Your task to perform on an android device: open sync settings in chrome Image 0: 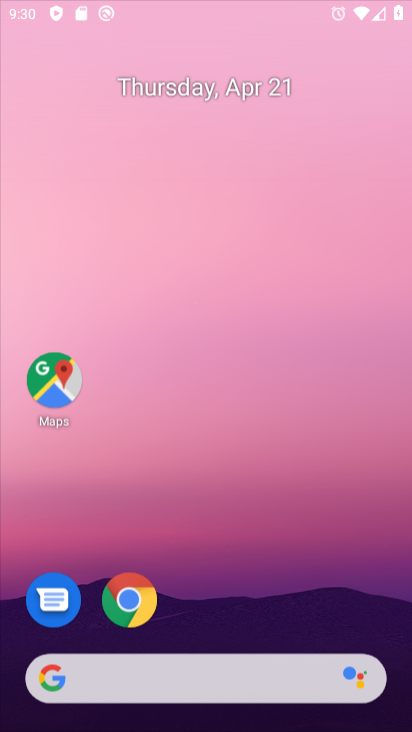
Step 0: click (128, 602)
Your task to perform on an android device: open sync settings in chrome Image 1: 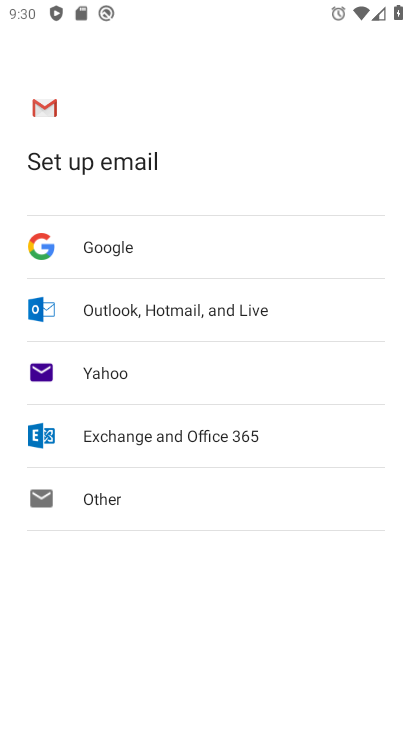
Step 1: press home button
Your task to perform on an android device: open sync settings in chrome Image 2: 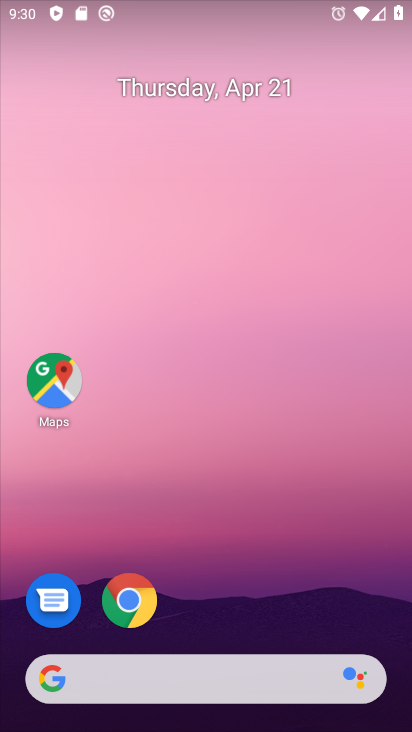
Step 2: click (131, 595)
Your task to perform on an android device: open sync settings in chrome Image 3: 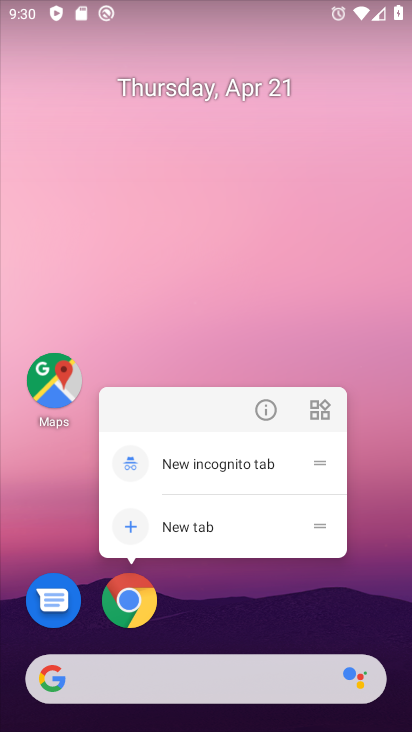
Step 3: click (131, 599)
Your task to perform on an android device: open sync settings in chrome Image 4: 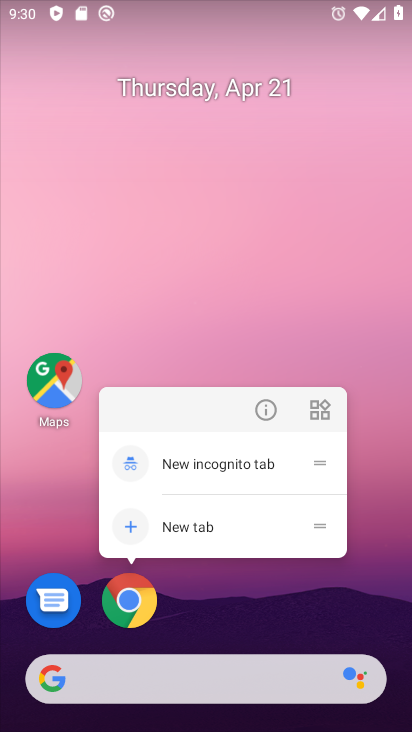
Step 4: click (223, 592)
Your task to perform on an android device: open sync settings in chrome Image 5: 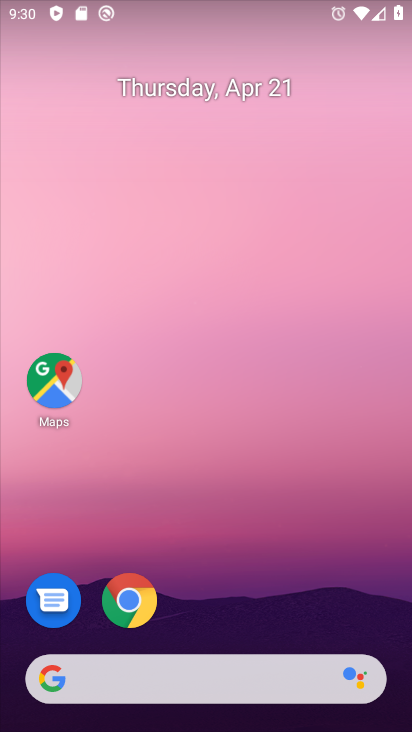
Step 5: click (130, 599)
Your task to perform on an android device: open sync settings in chrome Image 6: 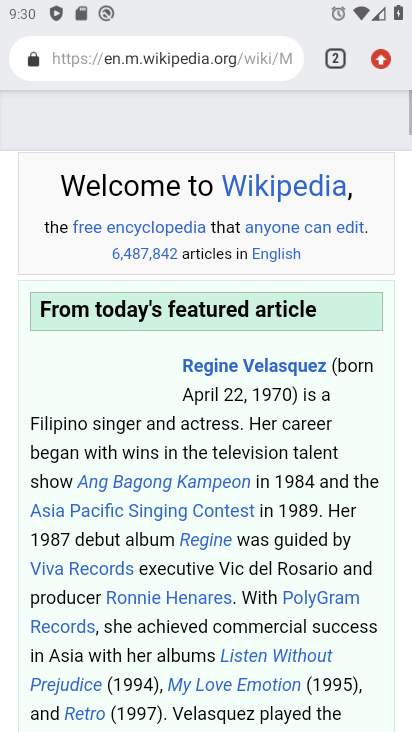
Step 6: click (379, 56)
Your task to perform on an android device: open sync settings in chrome Image 7: 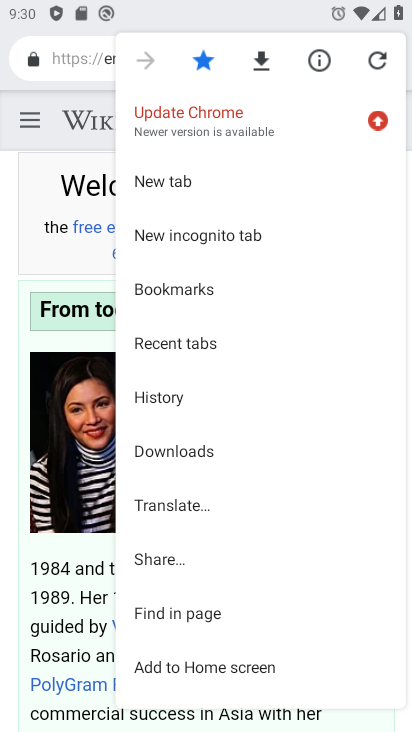
Step 7: drag from (250, 608) to (231, 187)
Your task to perform on an android device: open sync settings in chrome Image 8: 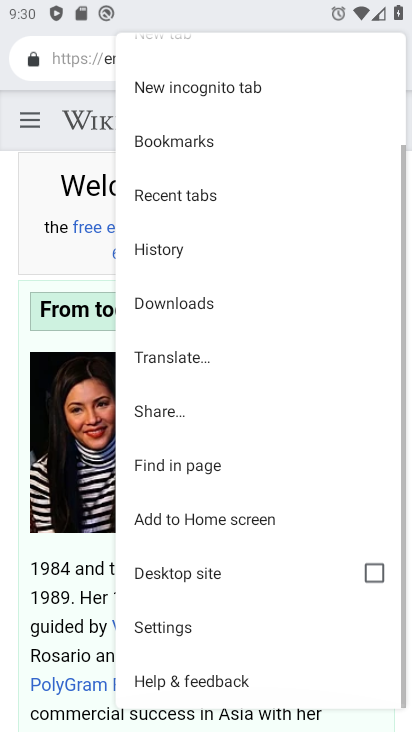
Step 8: click (176, 635)
Your task to perform on an android device: open sync settings in chrome Image 9: 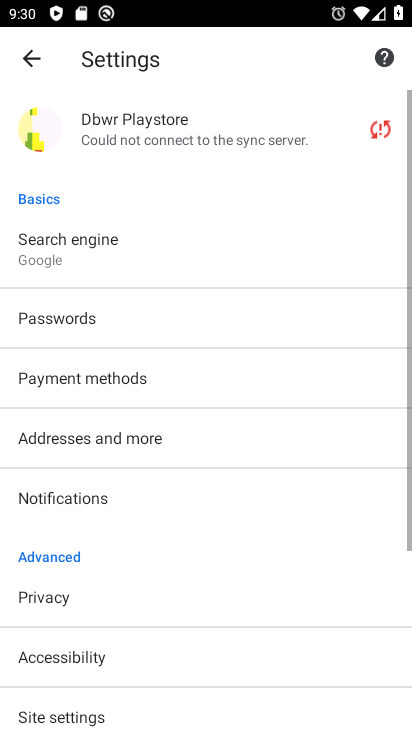
Step 9: drag from (182, 600) to (215, 285)
Your task to perform on an android device: open sync settings in chrome Image 10: 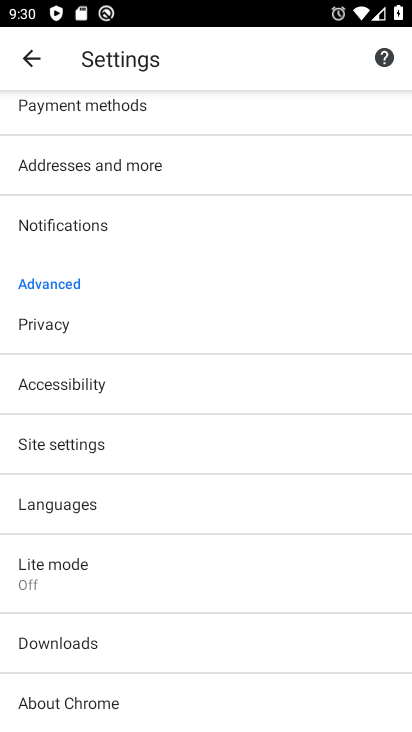
Step 10: click (71, 447)
Your task to perform on an android device: open sync settings in chrome Image 11: 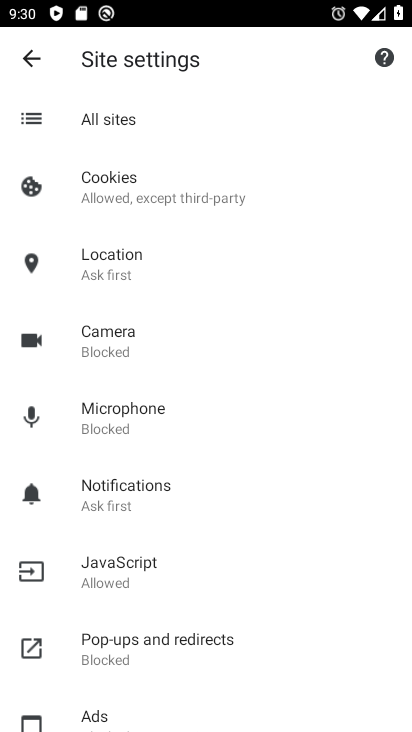
Step 11: drag from (182, 567) to (277, 146)
Your task to perform on an android device: open sync settings in chrome Image 12: 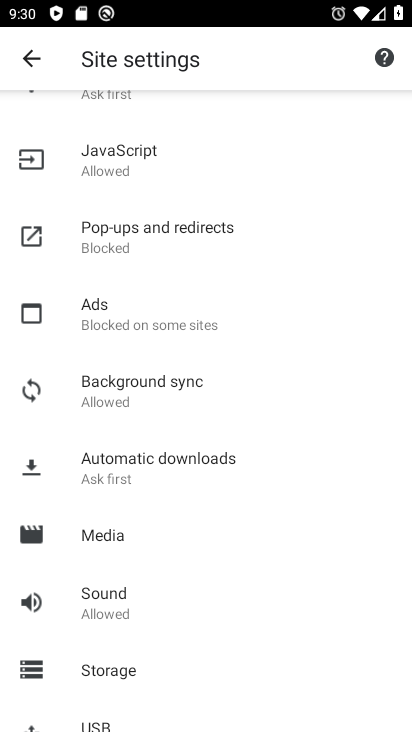
Step 12: click (146, 379)
Your task to perform on an android device: open sync settings in chrome Image 13: 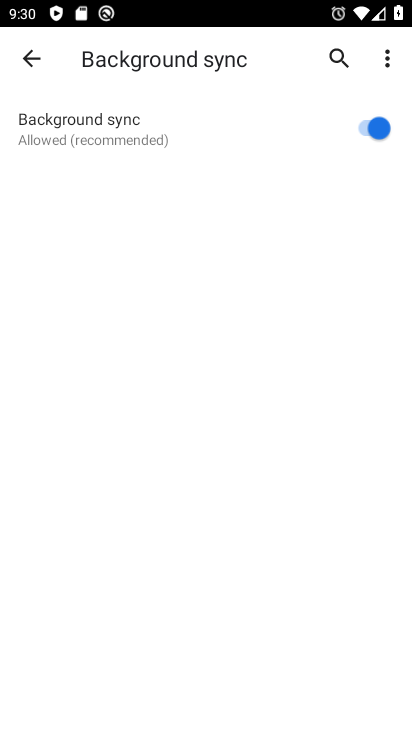
Step 13: task complete